Your task to perform on an android device: open a bookmark in the chrome app Image 0: 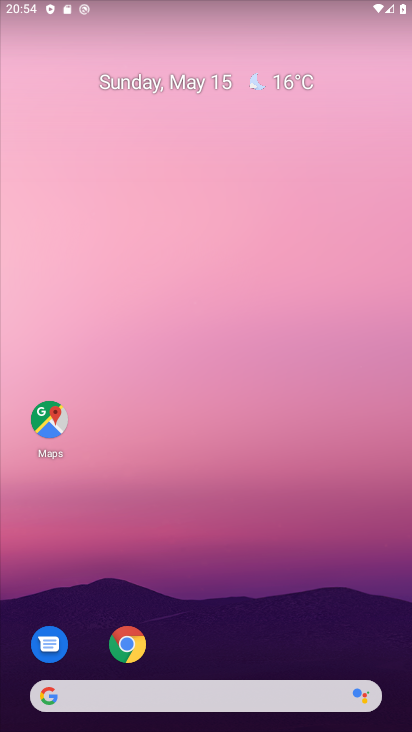
Step 0: click (124, 649)
Your task to perform on an android device: open a bookmark in the chrome app Image 1: 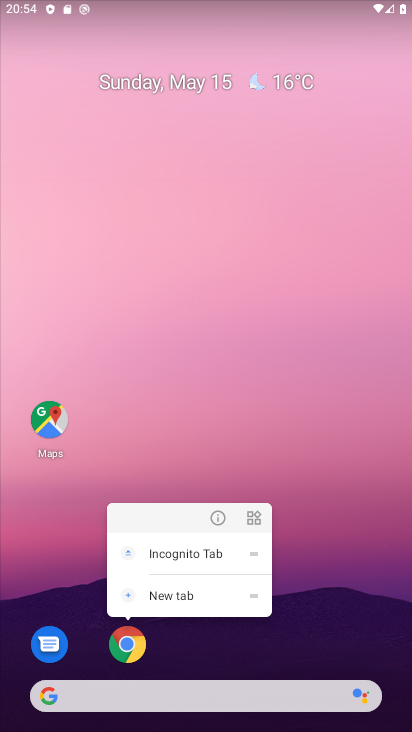
Step 1: click (122, 638)
Your task to perform on an android device: open a bookmark in the chrome app Image 2: 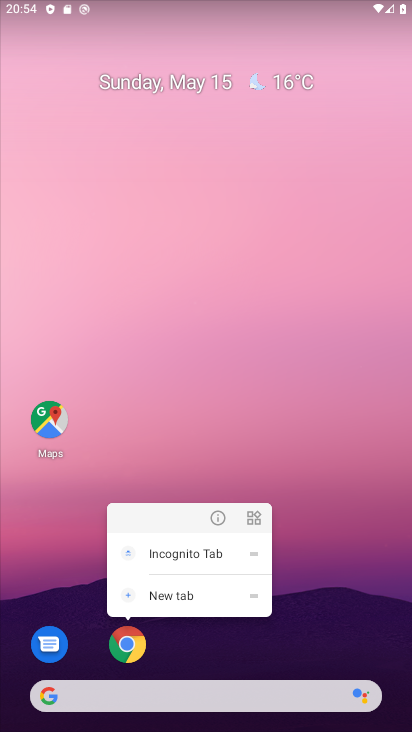
Step 2: click (127, 646)
Your task to perform on an android device: open a bookmark in the chrome app Image 3: 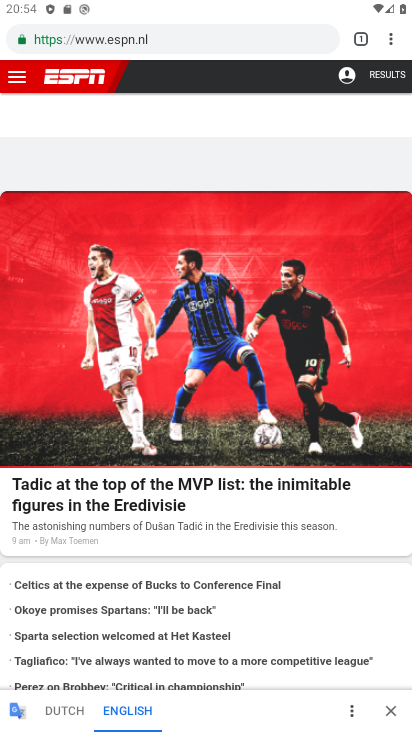
Step 3: drag from (390, 30) to (265, 140)
Your task to perform on an android device: open a bookmark in the chrome app Image 4: 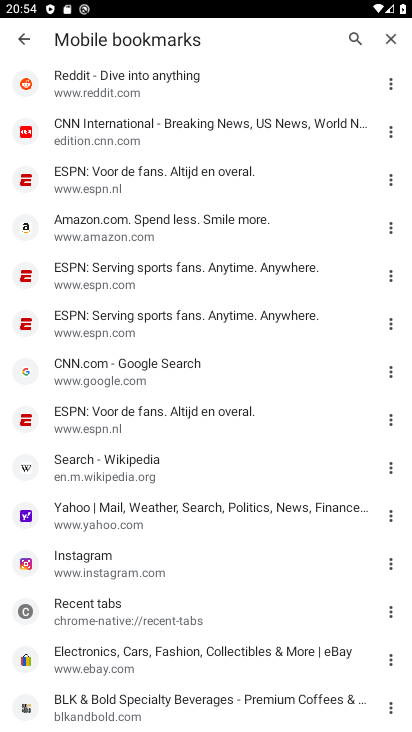
Step 4: click (148, 127)
Your task to perform on an android device: open a bookmark in the chrome app Image 5: 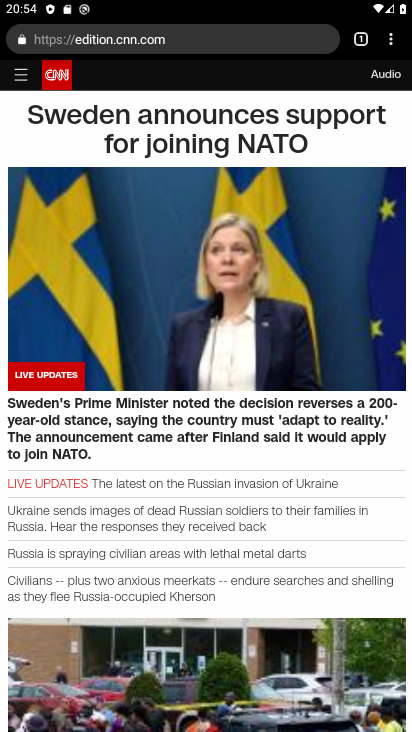
Step 5: task complete